Your task to perform on an android device: Open my contact list Image 0: 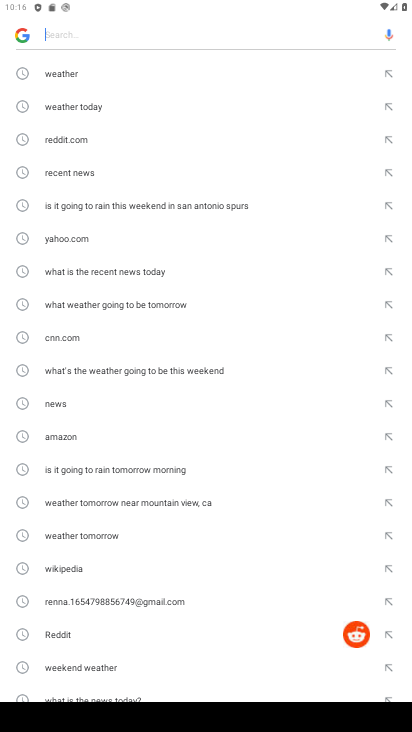
Step 0: press back button
Your task to perform on an android device: Open my contact list Image 1: 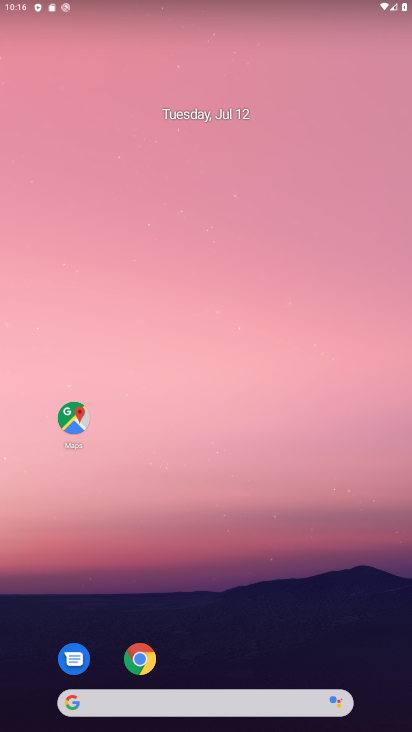
Step 1: drag from (225, 495) to (210, 173)
Your task to perform on an android device: Open my contact list Image 2: 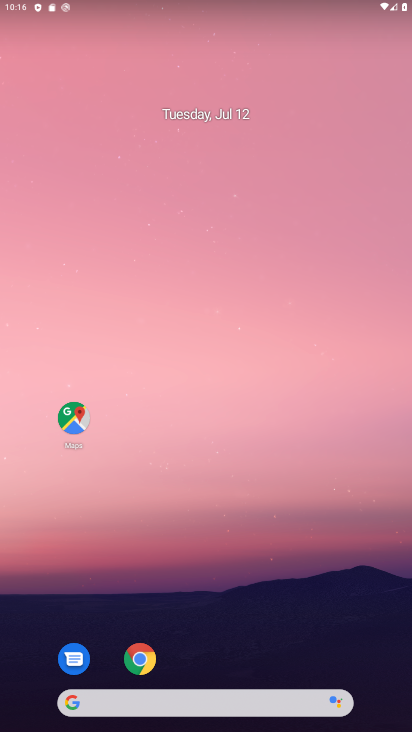
Step 2: drag from (199, 525) to (198, 52)
Your task to perform on an android device: Open my contact list Image 3: 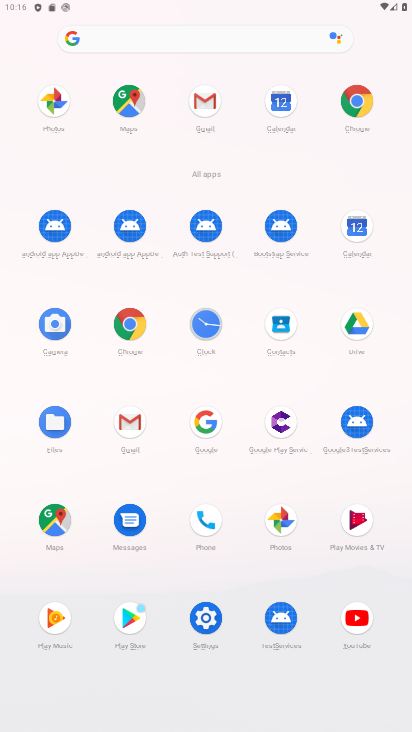
Step 3: click (285, 344)
Your task to perform on an android device: Open my contact list Image 4: 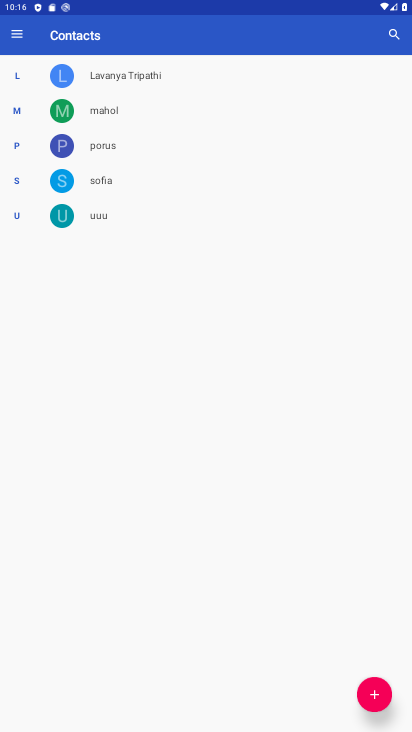
Step 4: task complete